Your task to perform on an android device: turn vacation reply on in the gmail app Image 0: 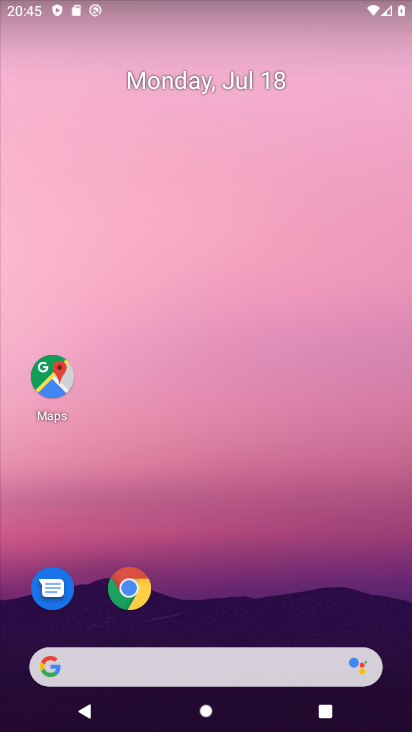
Step 0: press home button
Your task to perform on an android device: turn vacation reply on in the gmail app Image 1: 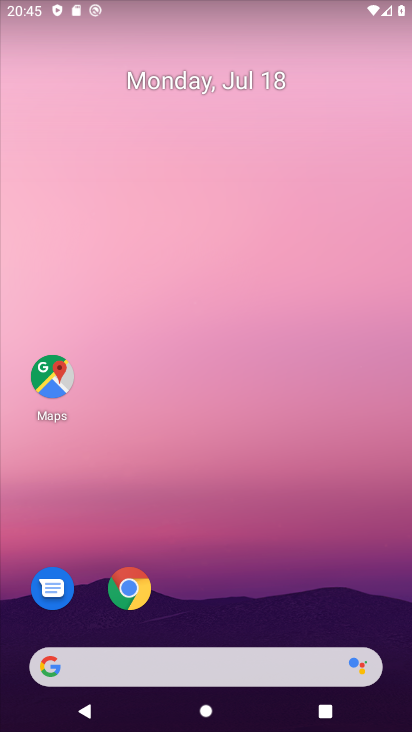
Step 1: drag from (228, 673) to (299, 189)
Your task to perform on an android device: turn vacation reply on in the gmail app Image 2: 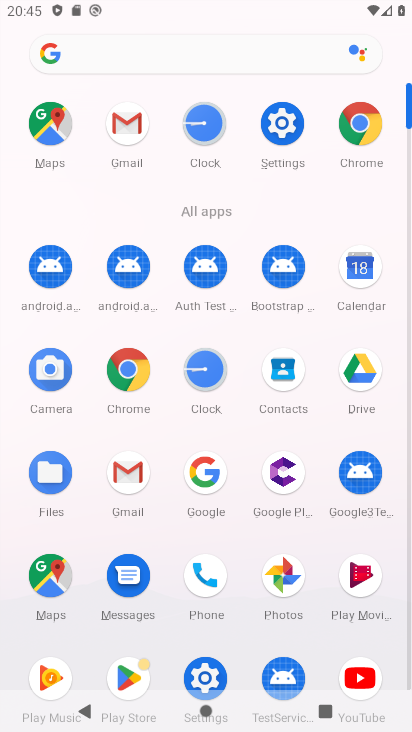
Step 2: click (127, 132)
Your task to perform on an android device: turn vacation reply on in the gmail app Image 3: 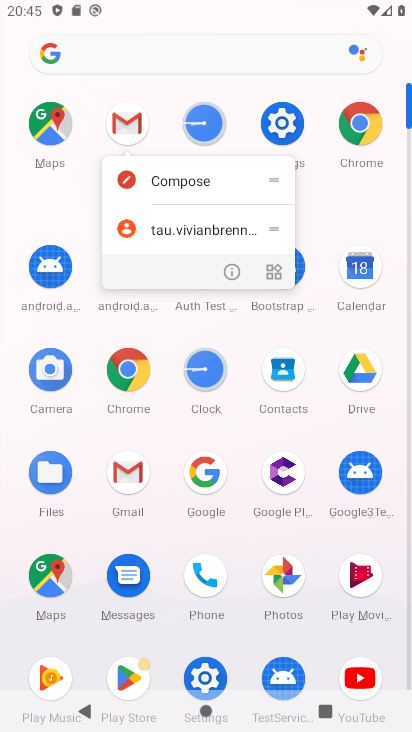
Step 3: click (126, 129)
Your task to perform on an android device: turn vacation reply on in the gmail app Image 4: 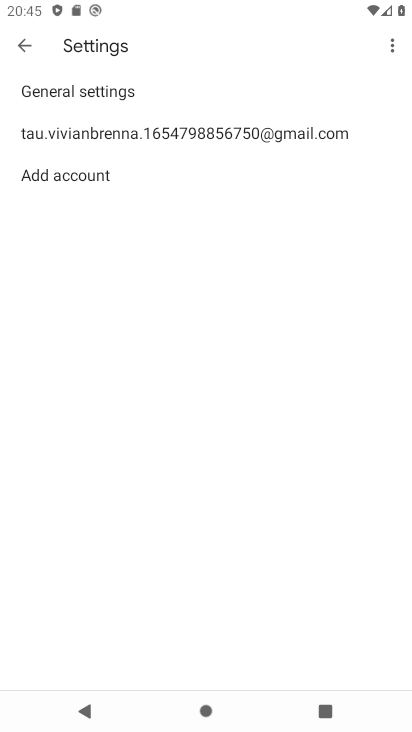
Step 4: click (143, 136)
Your task to perform on an android device: turn vacation reply on in the gmail app Image 5: 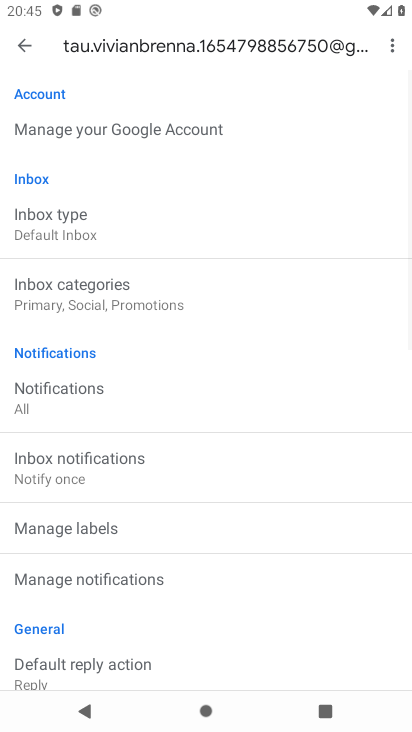
Step 5: drag from (279, 624) to (375, 170)
Your task to perform on an android device: turn vacation reply on in the gmail app Image 6: 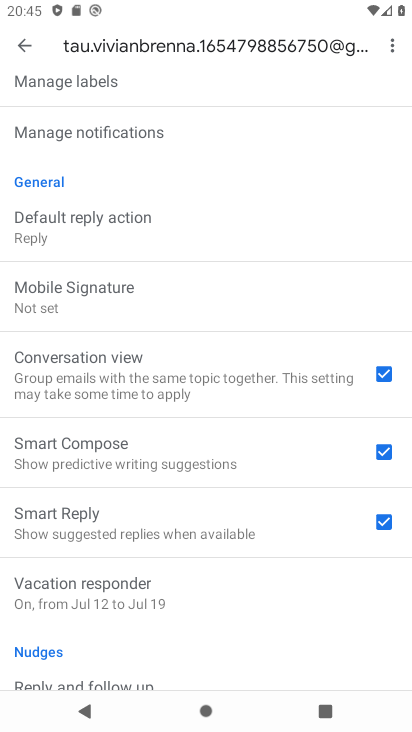
Step 6: click (113, 595)
Your task to perform on an android device: turn vacation reply on in the gmail app Image 7: 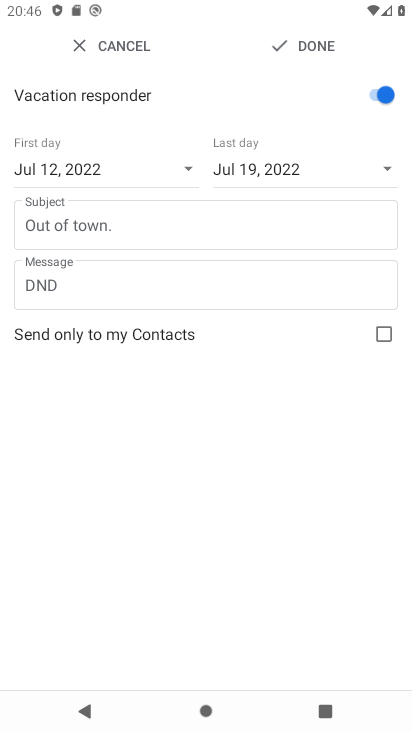
Step 7: task complete